Your task to perform on an android device: Open location settings Image 0: 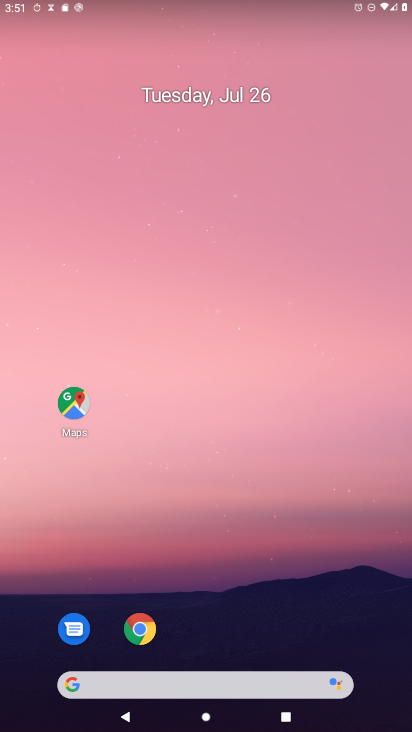
Step 0: drag from (248, 574) to (252, 3)
Your task to perform on an android device: Open location settings Image 1: 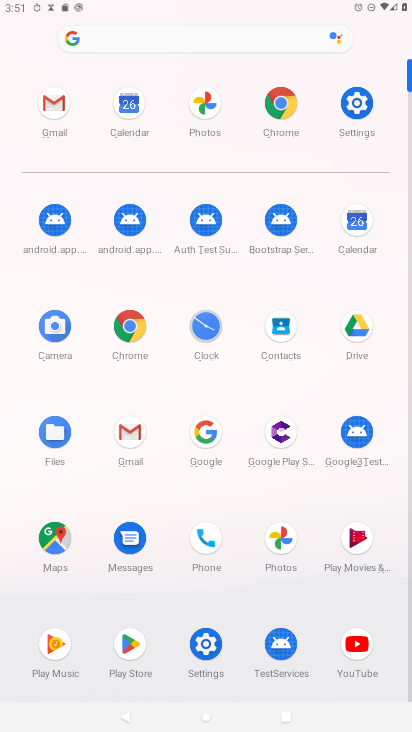
Step 1: click (354, 113)
Your task to perform on an android device: Open location settings Image 2: 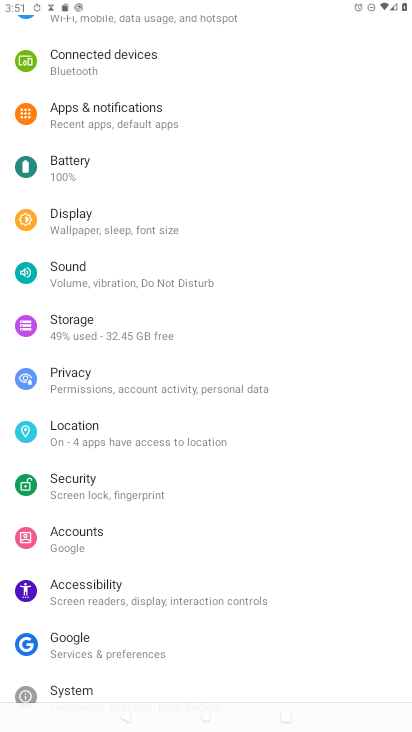
Step 2: click (120, 415)
Your task to perform on an android device: Open location settings Image 3: 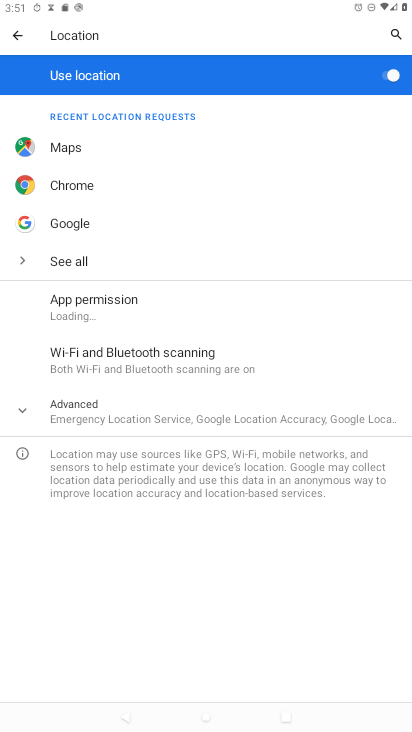
Step 3: task complete